Your task to perform on an android device: Open the calendar and show me this week's events Image 0: 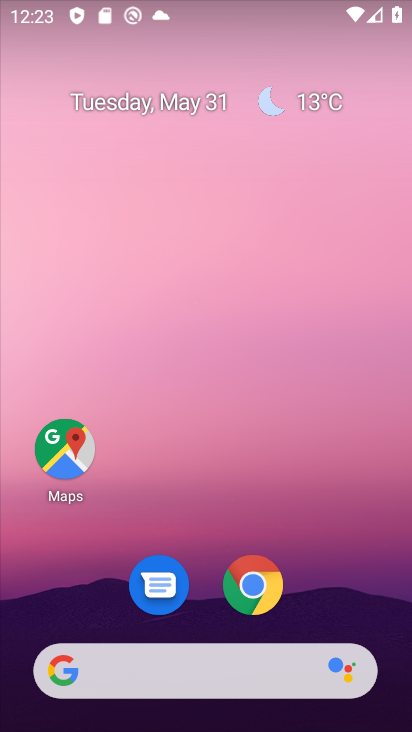
Step 0: drag from (206, 487) to (217, 57)
Your task to perform on an android device: Open the calendar and show me this week's events Image 1: 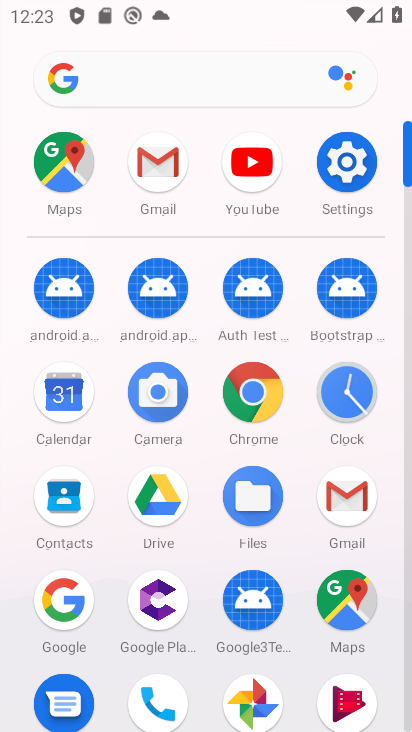
Step 1: click (60, 398)
Your task to perform on an android device: Open the calendar and show me this week's events Image 2: 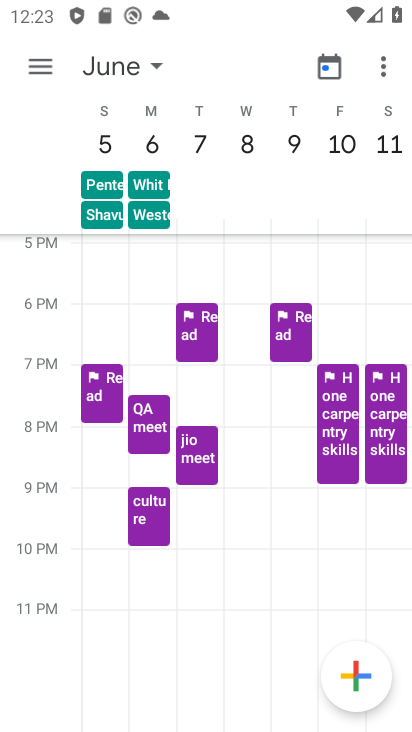
Step 2: task complete